Your task to perform on an android device: Open the map Image 0: 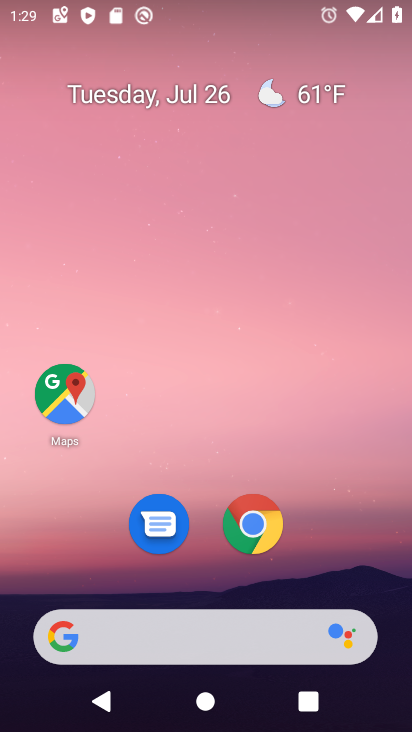
Step 0: press home button
Your task to perform on an android device: Open the map Image 1: 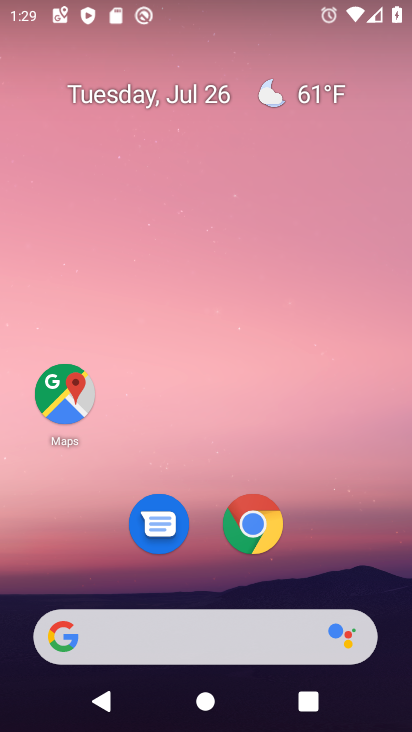
Step 1: click (62, 402)
Your task to perform on an android device: Open the map Image 2: 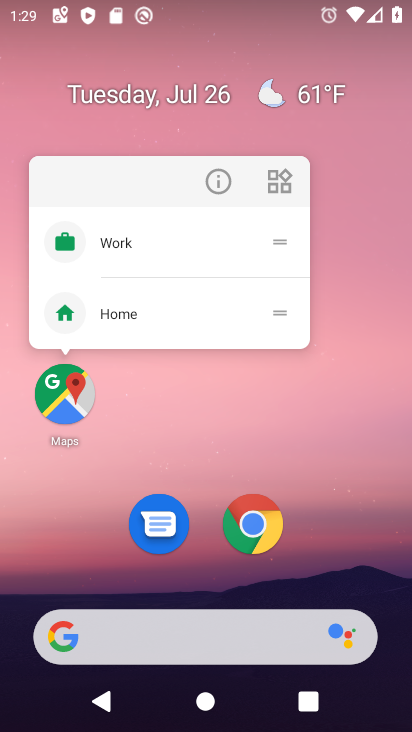
Step 2: click (62, 403)
Your task to perform on an android device: Open the map Image 3: 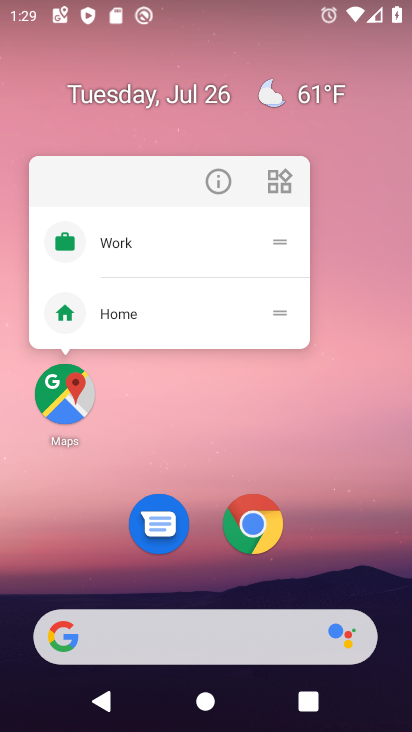
Step 3: click (67, 396)
Your task to perform on an android device: Open the map Image 4: 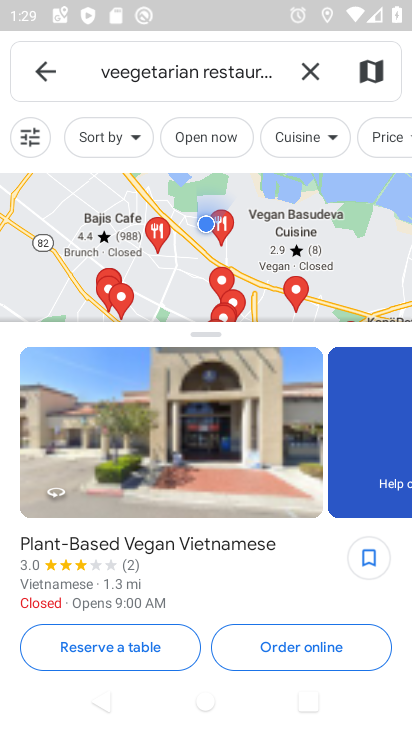
Step 4: click (307, 73)
Your task to perform on an android device: Open the map Image 5: 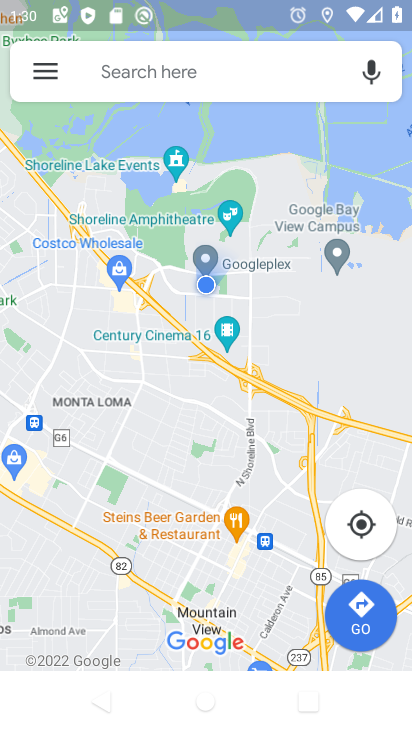
Step 5: task complete